Your task to perform on an android device: manage bookmarks in the chrome app Image 0: 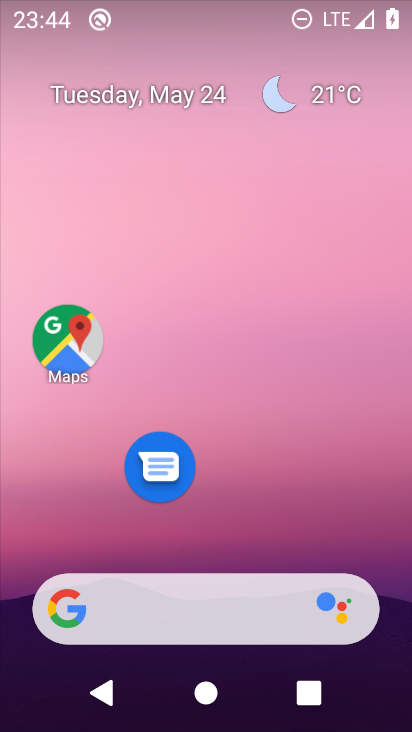
Step 0: drag from (238, 534) to (258, 42)
Your task to perform on an android device: manage bookmarks in the chrome app Image 1: 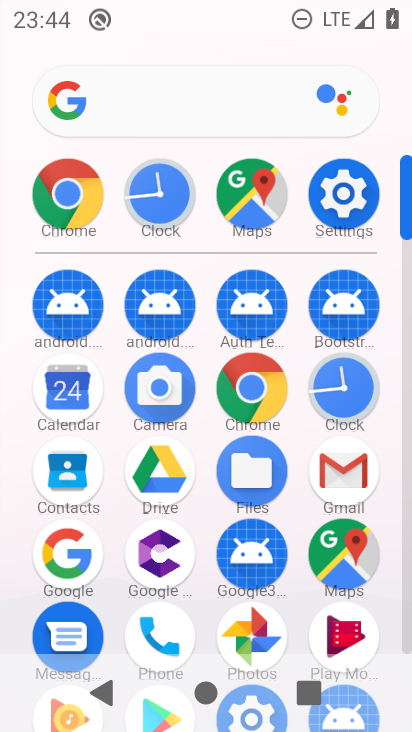
Step 1: click (248, 392)
Your task to perform on an android device: manage bookmarks in the chrome app Image 2: 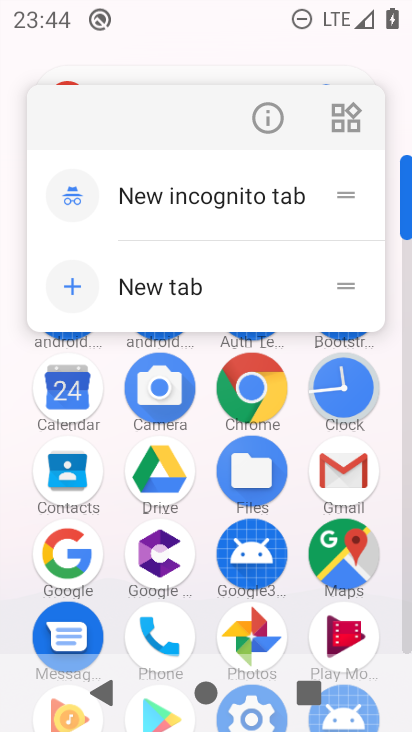
Step 2: click (268, 117)
Your task to perform on an android device: manage bookmarks in the chrome app Image 3: 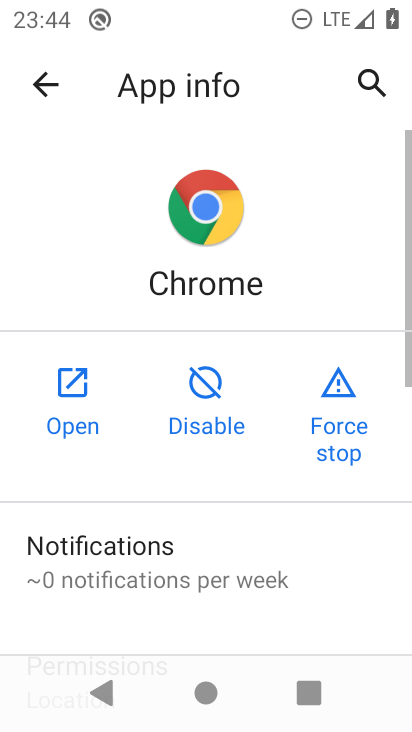
Step 3: click (80, 422)
Your task to perform on an android device: manage bookmarks in the chrome app Image 4: 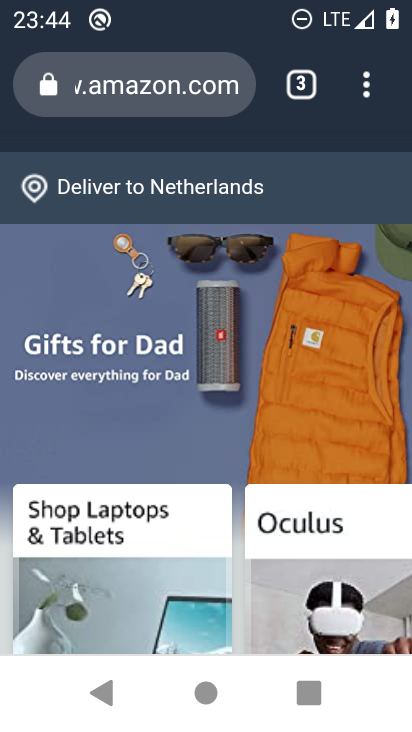
Step 4: click (368, 92)
Your task to perform on an android device: manage bookmarks in the chrome app Image 5: 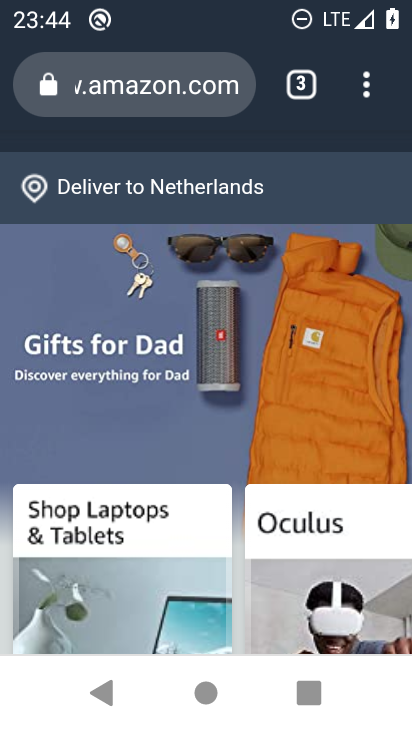
Step 5: click (377, 88)
Your task to perform on an android device: manage bookmarks in the chrome app Image 6: 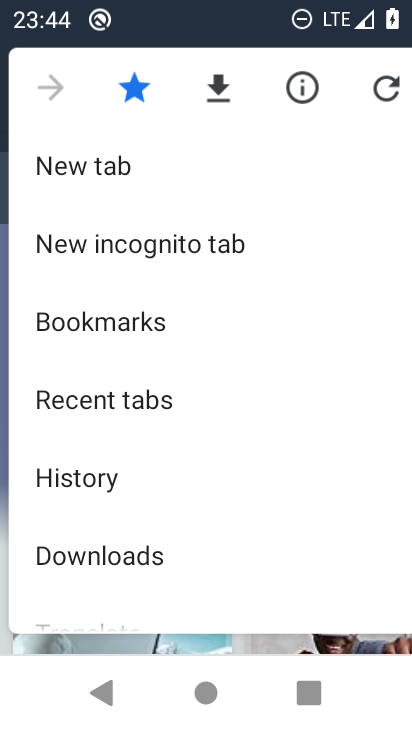
Step 6: drag from (150, 516) to (247, 631)
Your task to perform on an android device: manage bookmarks in the chrome app Image 7: 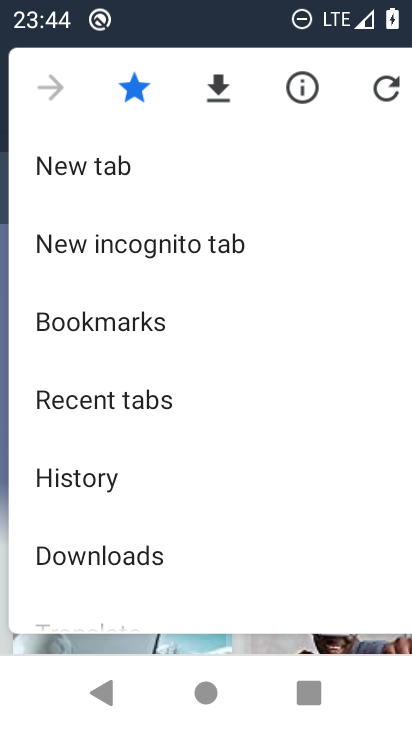
Step 7: click (153, 324)
Your task to perform on an android device: manage bookmarks in the chrome app Image 8: 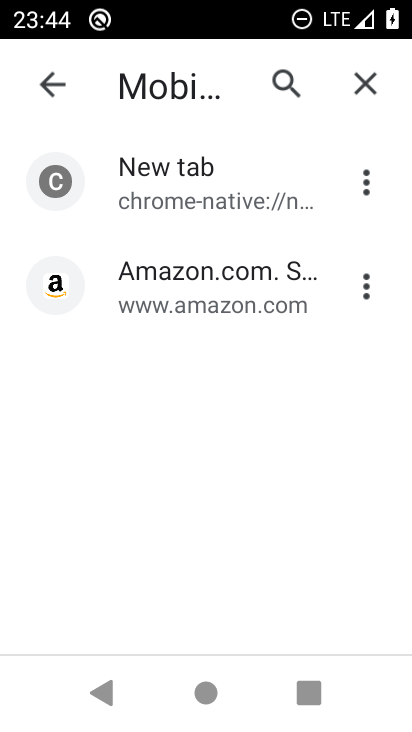
Step 8: drag from (207, 526) to (261, 252)
Your task to perform on an android device: manage bookmarks in the chrome app Image 9: 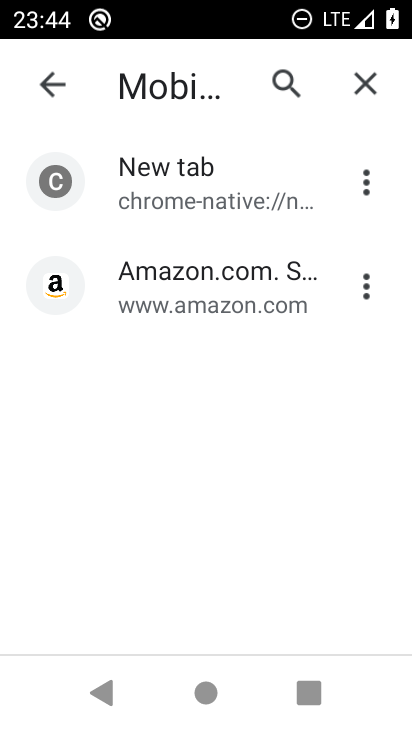
Step 9: drag from (221, 494) to (230, 243)
Your task to perform on an android device: manage bookmarks in the chrome app Image 10: 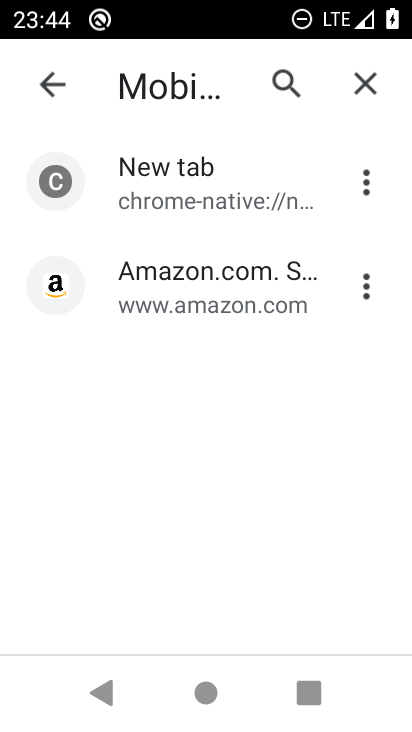
Step 10: click (358, 285)
Your task to perform on an android device: manage bookmarks in the chrome app Image 11: 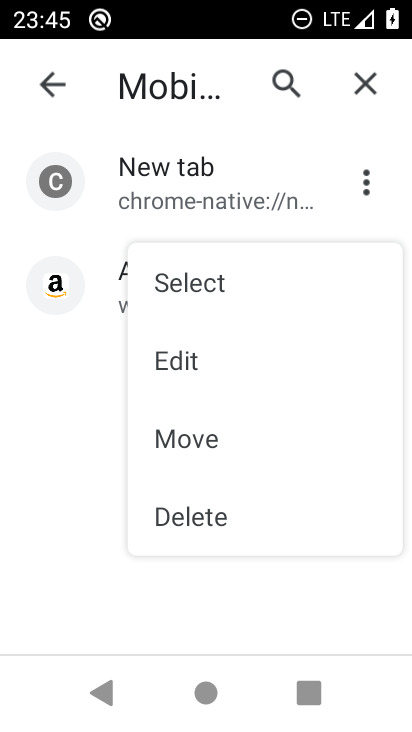
Step 11: click (192, 357)
Your task to perform on an android device: manage bookmarks in the chrome app Image 12: 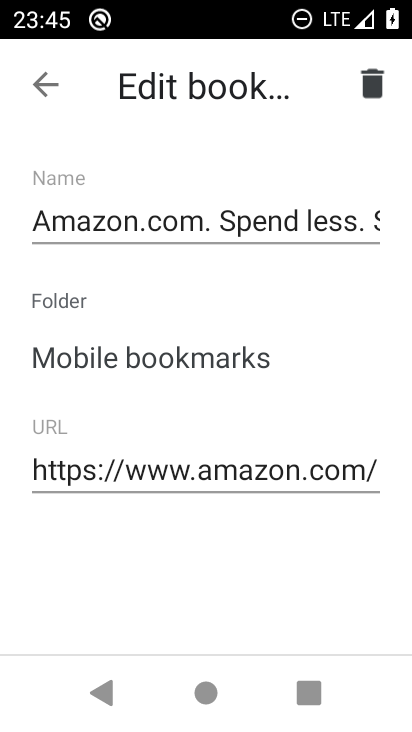
Step 12: task complete